Your task to perform on an android device: all mails in gmail Image 0: 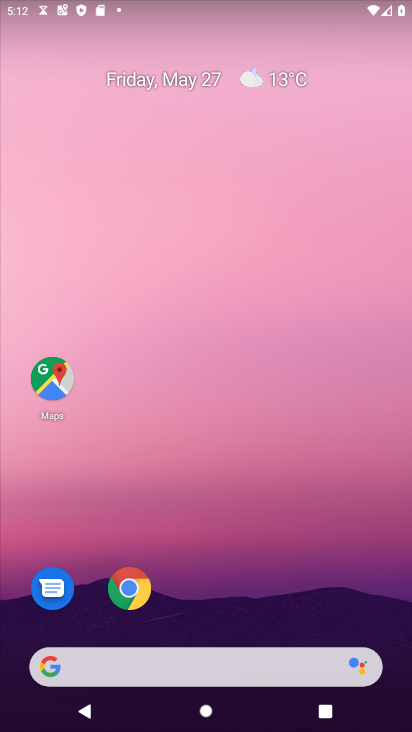
Step 0: drag from (208, 615) to (268, 124)
Your task to perform on an android device: all mails in gmail Image 1: 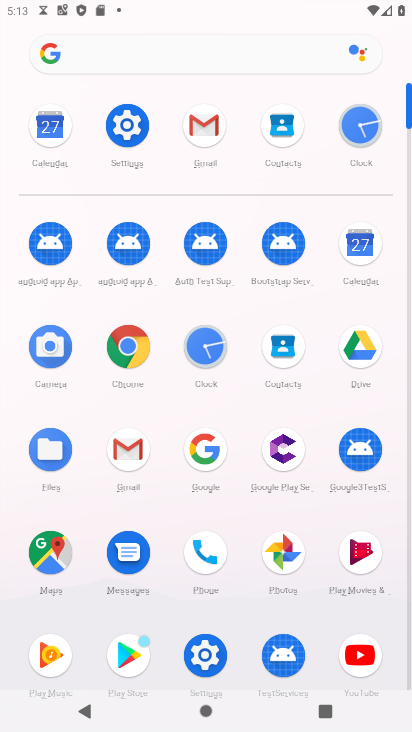
Step 1: click (189, 120)
Your task to perform on an android device: all mails in gmail Image 2: 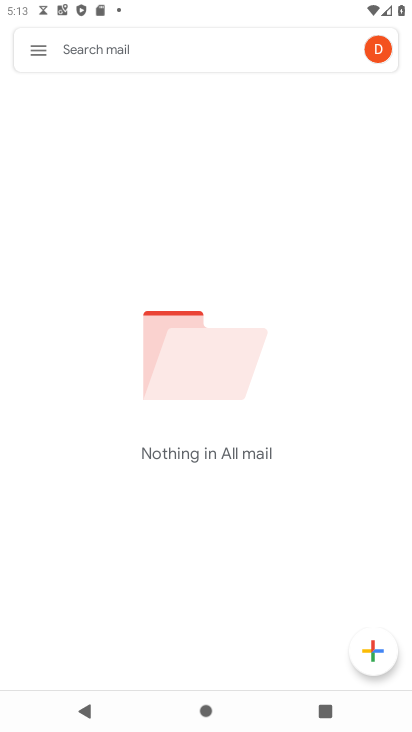
Step 2: task complete